Your task to perform on an android device: Go to accessibility settings Image 0: 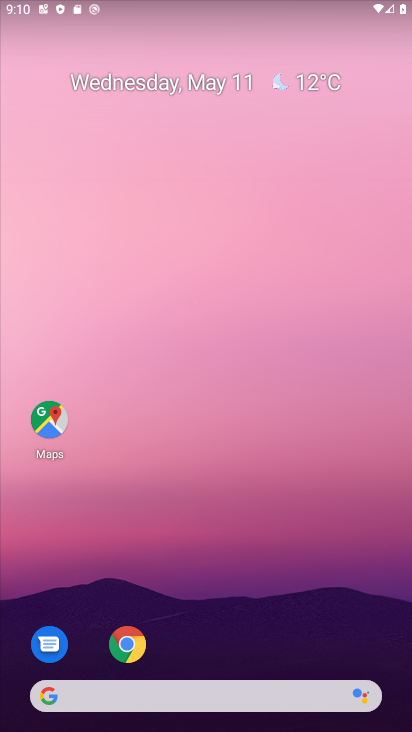
Step 0: drag from (208, 657) to (211, 279)
Your task to perform on an android device: Go to accessibility settings Image 1: 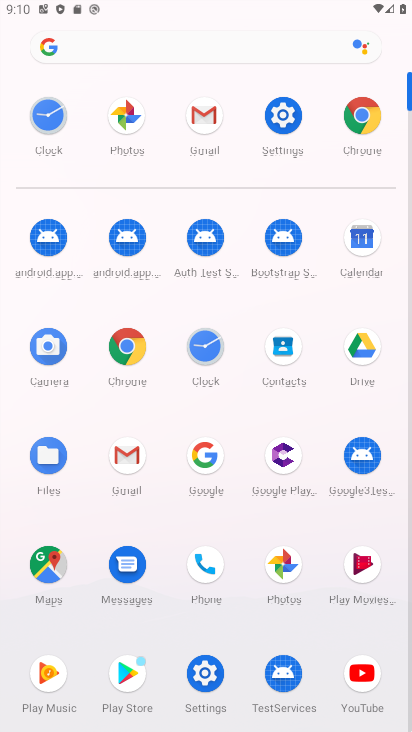
Step 1: click (291, 124)
Your task to perform on an android device: Go to accessibility settings Image 2: 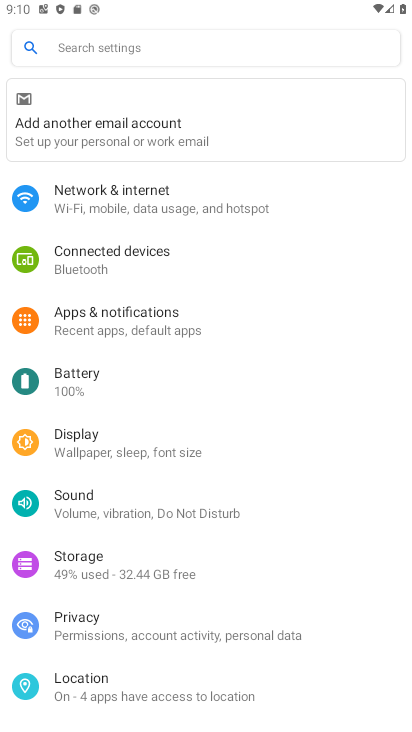
Step 2: drag from (128, 639) to (149, 189)
Your task to perform on an android device: Go to accessibility settings Image 3: 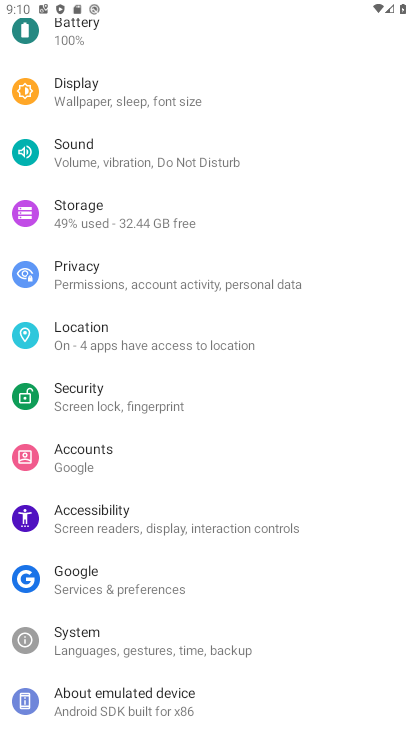
Step 3: click (166, 520)
Your task to perform on an android device: Go to accessibility settings Image 4: 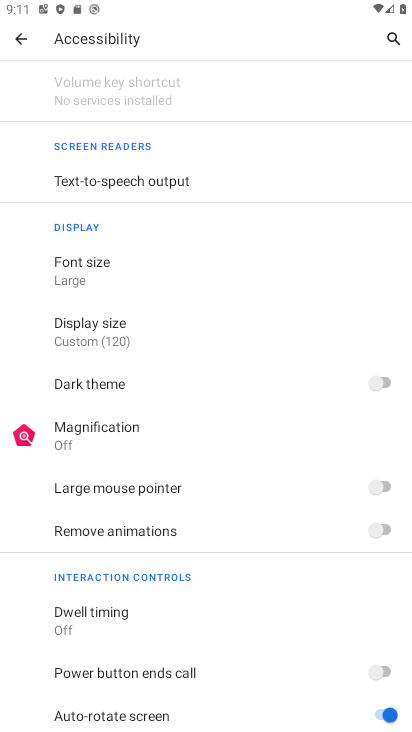
Step 4: task complete